Your task to perform on an android device: change notifications settings Image 0: 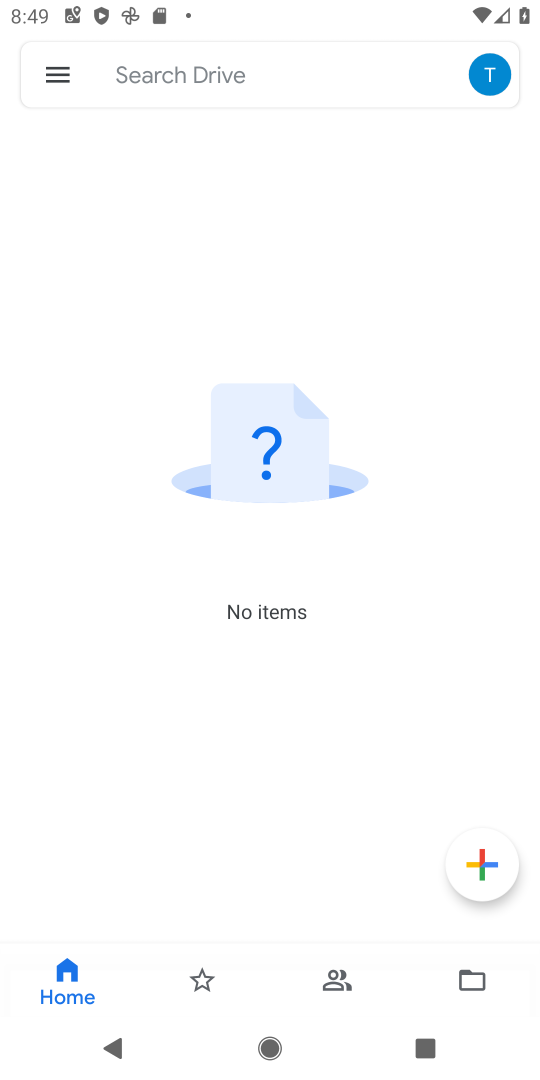
Step 0: press home button
Your task to perform on an android device: change notifications settings Image 1: 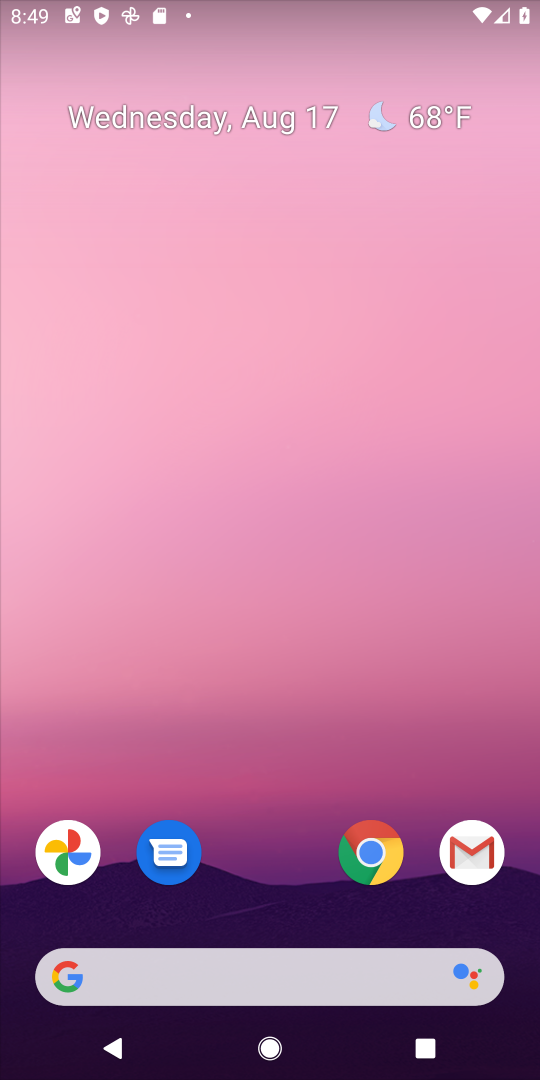
Step 1: drag from (284, 905) to (240, 177)
Your task to perform on an android device: change notifications settings Image 2: 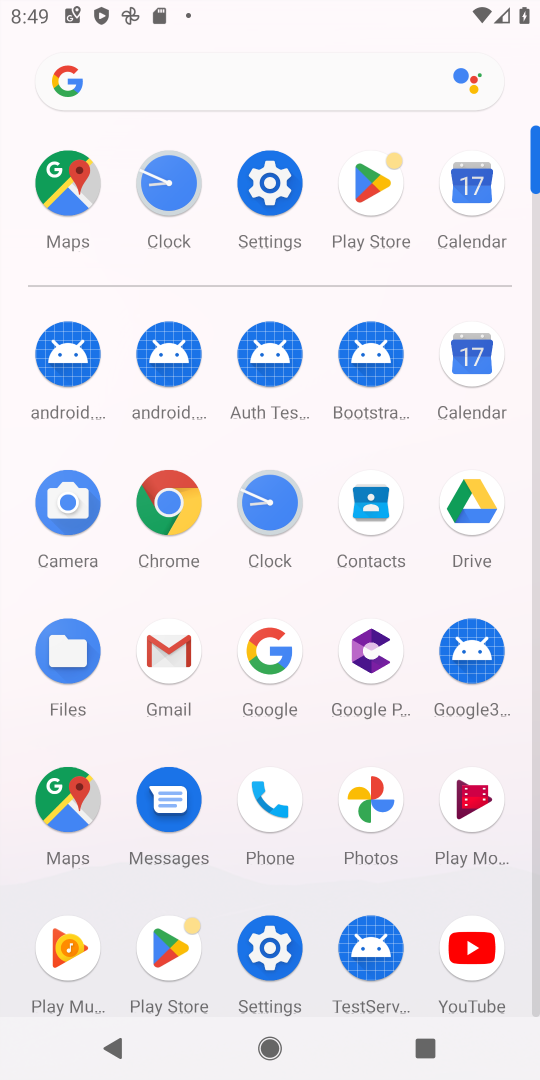
Step 2: click (274, 182)
Your task to perform on an android device: change notifications settings Image 3: 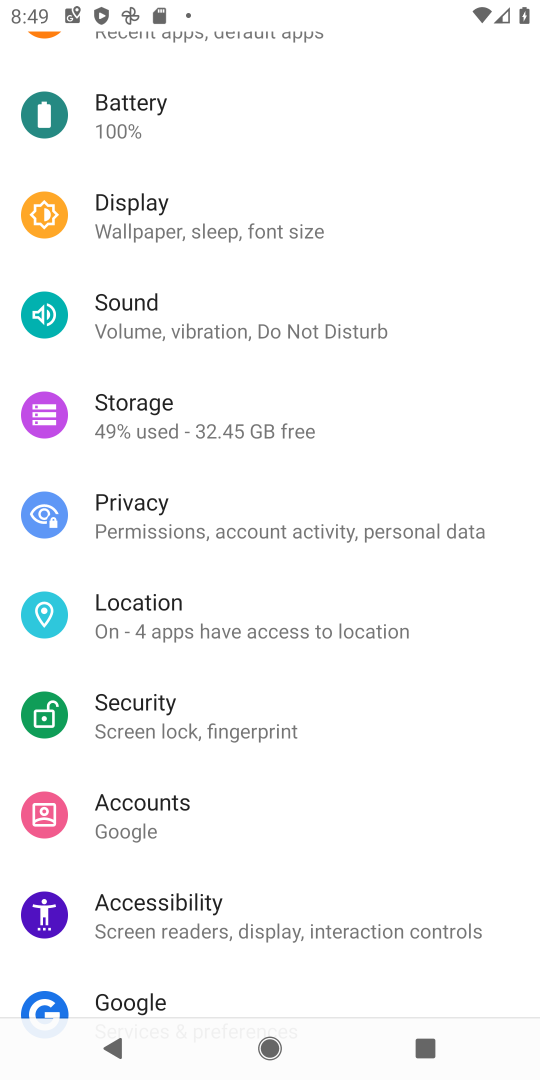
Step 3: drag from (250, 133) to (281, 433)
Your task to perform on an android device: change notifications settings Image 4: 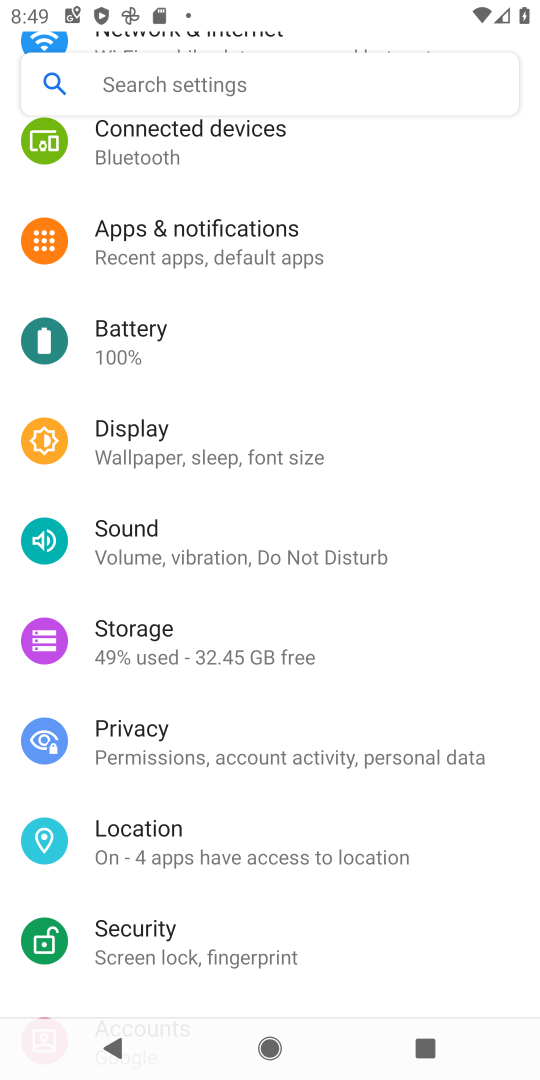
Step 4: click (179, 226)
Your task to perform on an android device: change notifications settings Image 5: 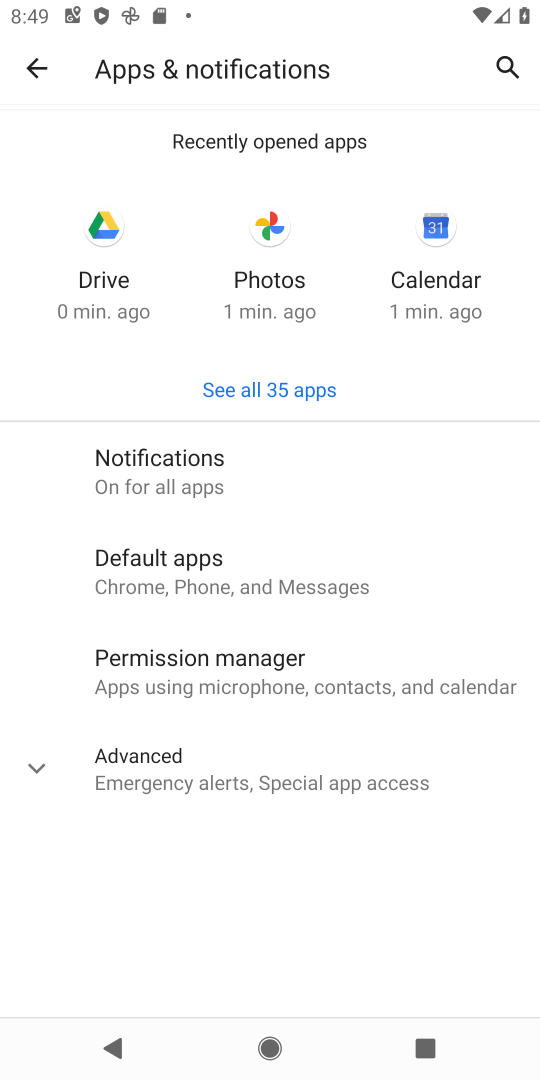
Step 5: click (147, 460)
Your task to perform on an android device: change notifications settings Image 6: 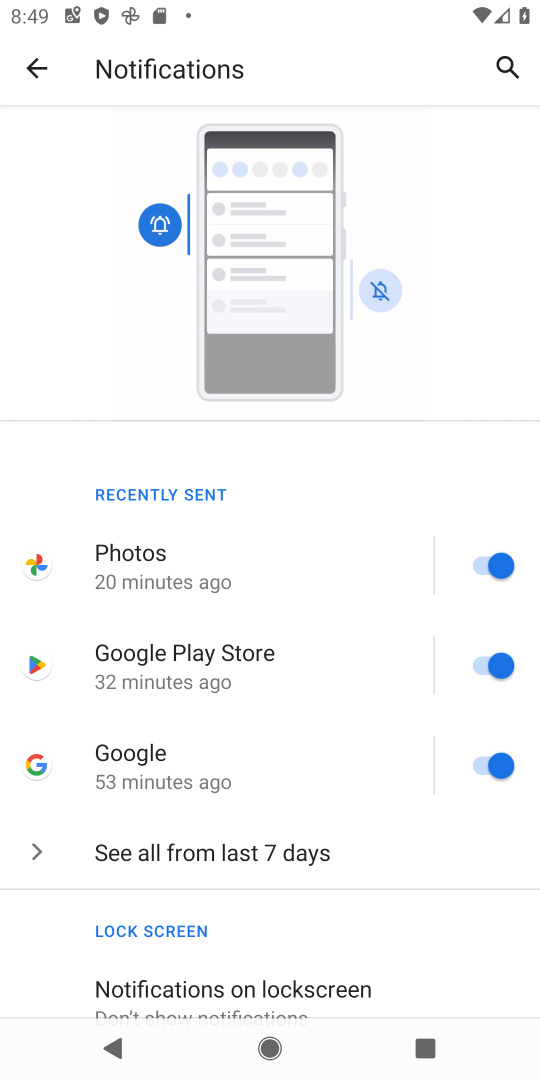
Step 6: click (219, 848)
Your task to perform on an android device: change notifications settings Image 7: 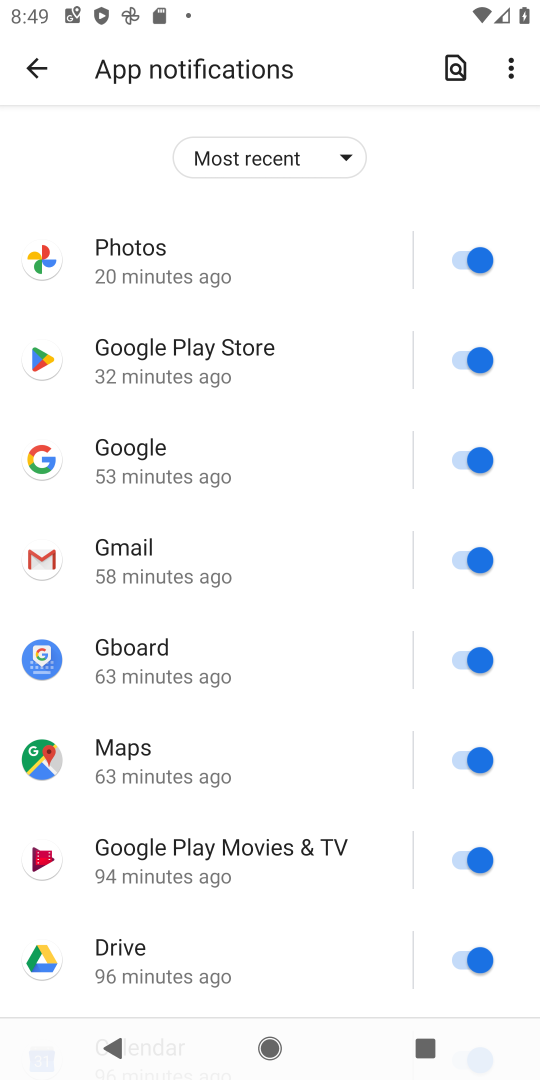
Step 7: click (332, 151)
Your task to perform on an android device: change notifications settings Image 8: 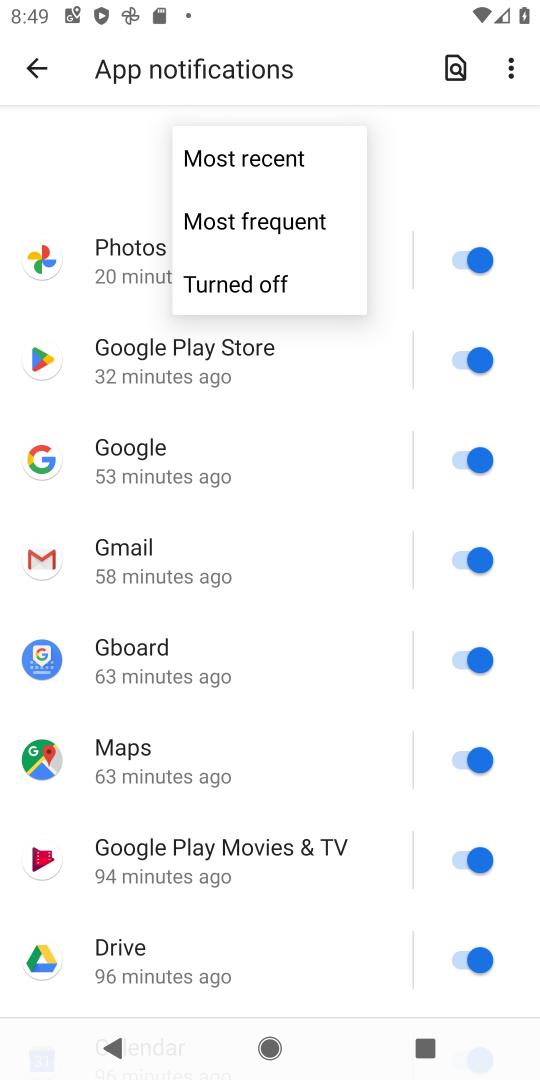
Step 8: click (250, 279)
Your task to perform on an android device: change notifications settings Image 9: 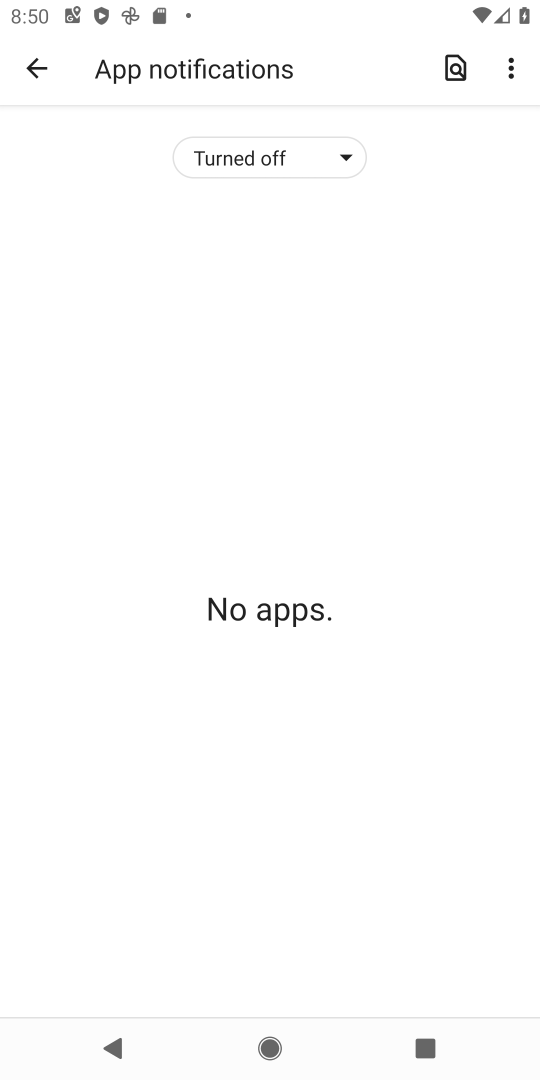
Step 9: task complete